Your task to perform on an android device: turn on the 24-hour format for clock Image 0: 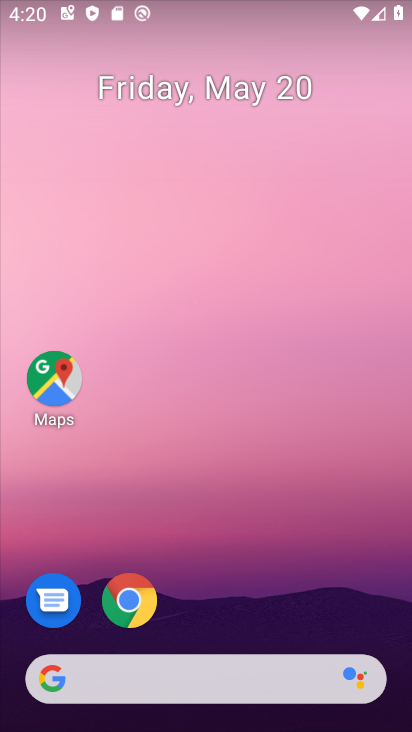
Step 0: drag from (221, 557) to (189, 5)
Your task to perform on an android device: turn on the 24-hour format for clock Image 1: 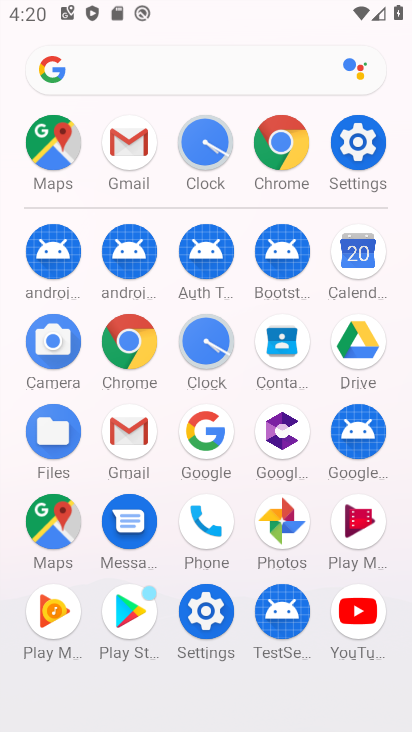
Step 1: drag from (16, 615) to (5, 292)
Your task to perform on an android device: turn on the 24-hour format for clock Image 2: 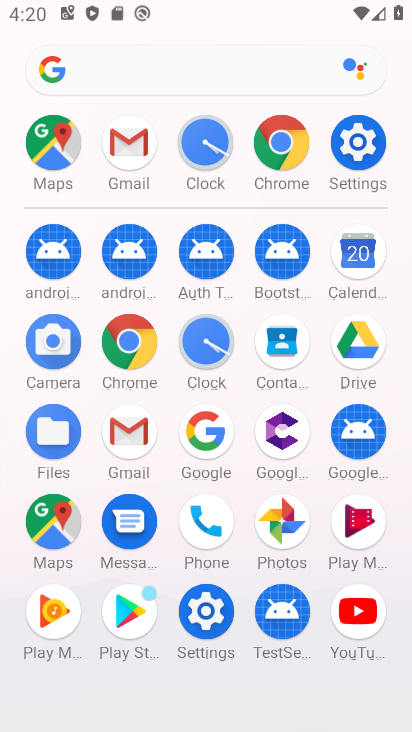
Step 2: click (199, 340)
Your task to perform on an android device: turn on the 24-hour format for clock Image 3: 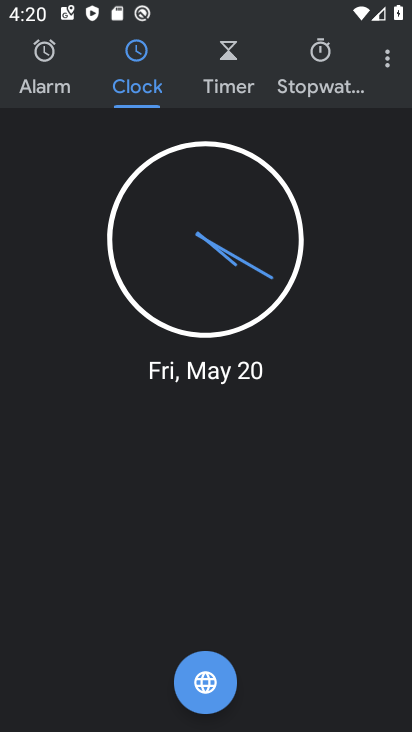
Step 3: drag from (386, 57) to (325, 113)
Your task to perform on an android device: turn on the 24-hour format for clock Image 4: 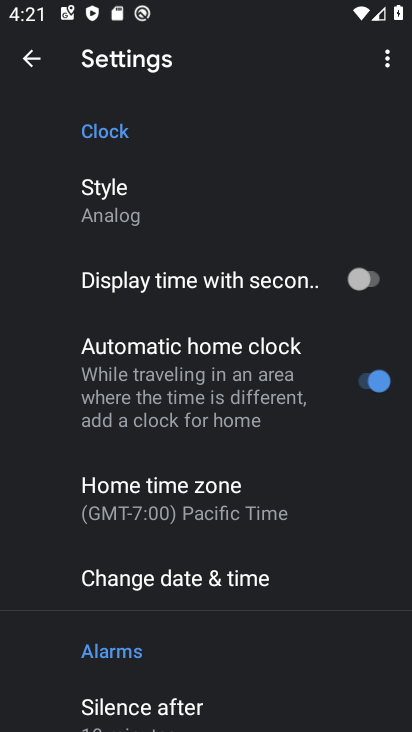
Step 4: drag from (256, 560) to (238, 130)
Your task to perform on an android device: turn on the 24-hour format for clock Image 5: 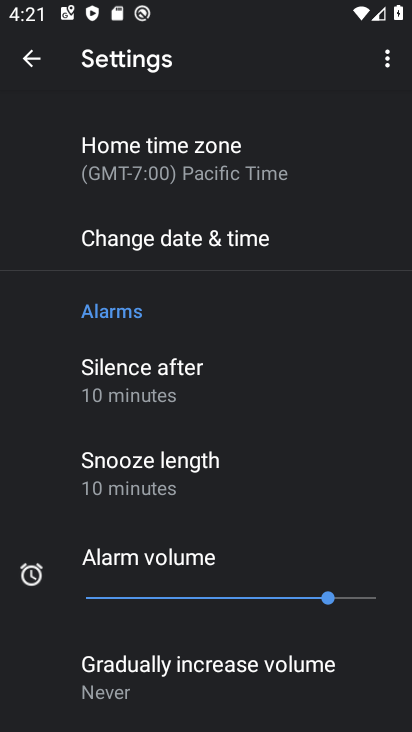
Step 5: drag from (218, 516) to (247, 162)
Your task to perform on an android device: turn on the 24-hour format for clock Image 6: 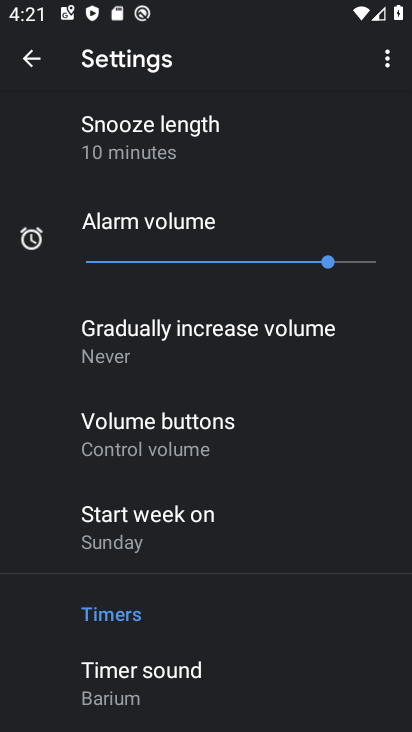
Step 6: drag from (208, 602) to (235, 154)
Your task to perform on an android device: turn on the 24-hour format for clock Image 7: 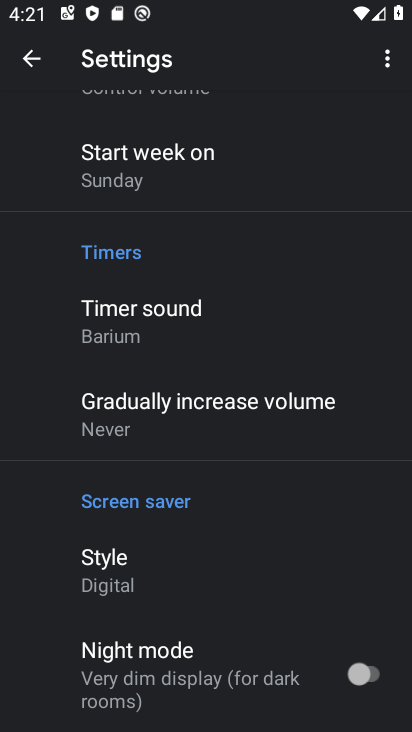
Step 7: drag from (243, 543) to (240, 180)
Your task to perform on an android device: turn on the 24-hour format for clock Image 8: 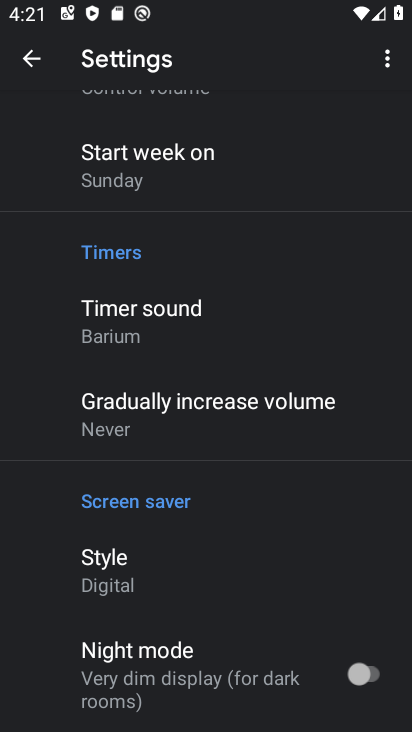
Step 8: drag from (190, 565) to (219, 205)
Your task to perform on an android device: turn on the 24-hour format for clock Image 9: 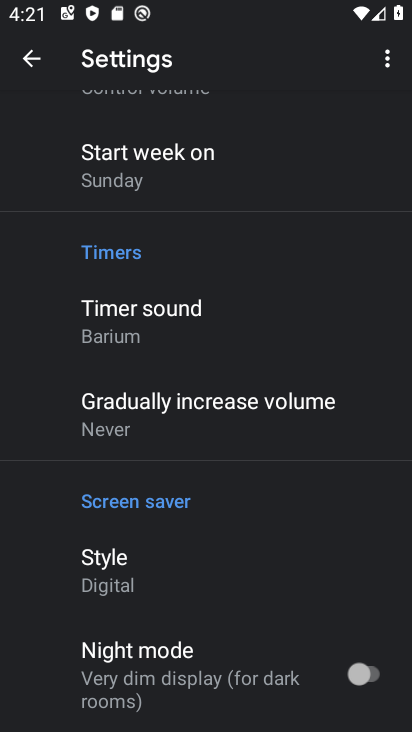
Step 9: drag from (209, 281) to (209, 673)
Your task to perform on an android device: turn on the 24-hour format for clock Image 10: 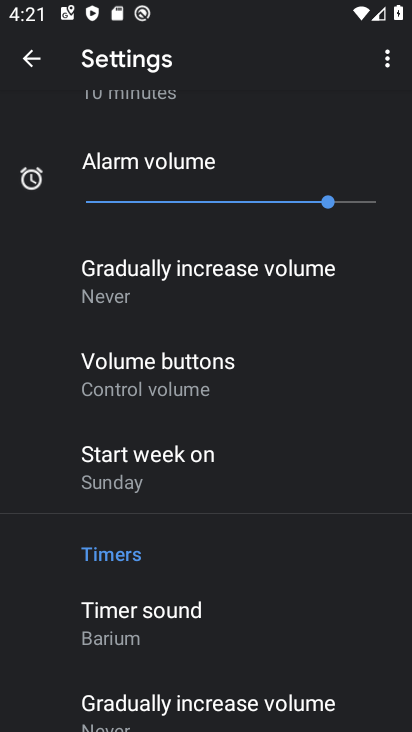
Step 10: drag from (217, 401) to (211, 731)
Your task to perform on an android device: turn on the 24-hour format for clock Image 11: 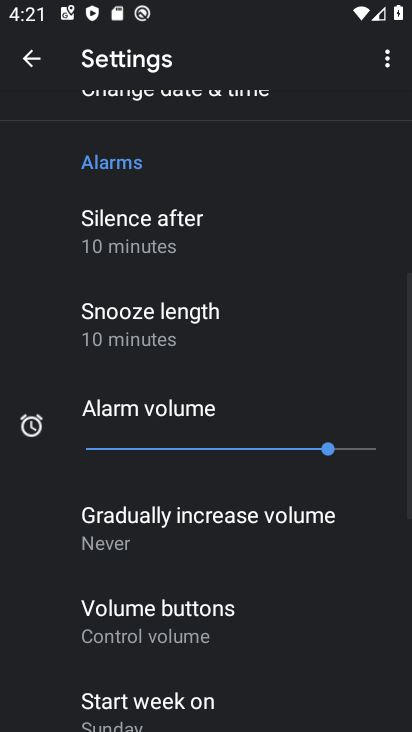
Step 11: drag from (195, 151) to (190, 585)
Your task to perform on an android device: turn on the 24-hour format for clock Image 12: 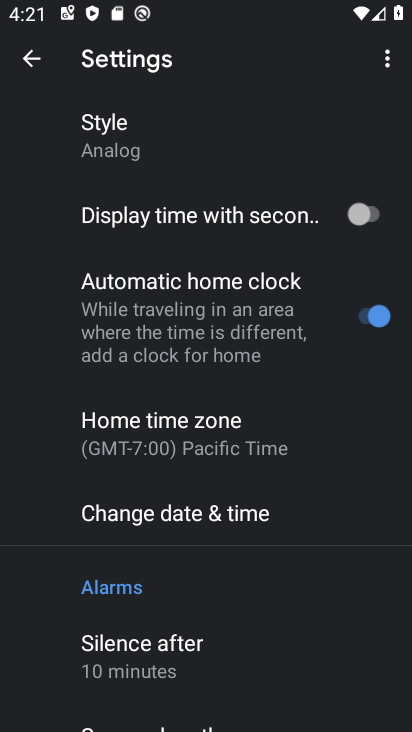
Step 12: click (187, 503)
Your task to perform on an android device: turn on the 24-hour format for clock Image 13: 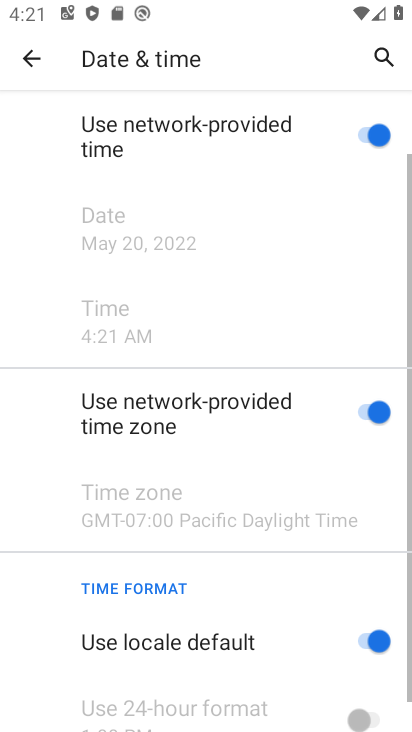
Step 13: drag from (189, 667) to (219, 152)
Your task to perform on an android device: turn on the 24-hour format for clock Image 14: 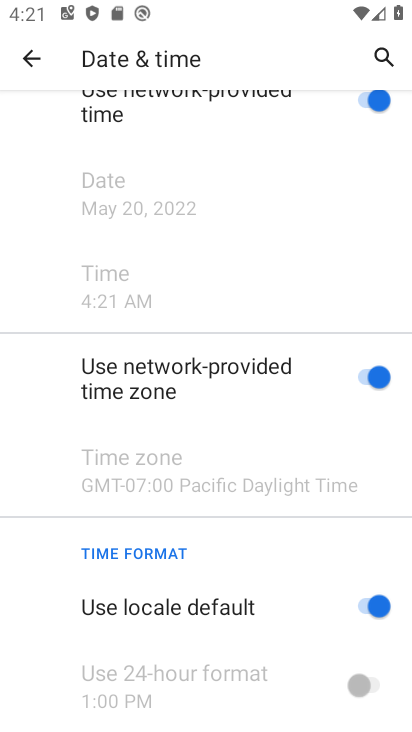
Step 14: drag from (252, 560) to (224, 188)
Your task to perform on an android device: turn on the 24-hour format for clock Image 15: 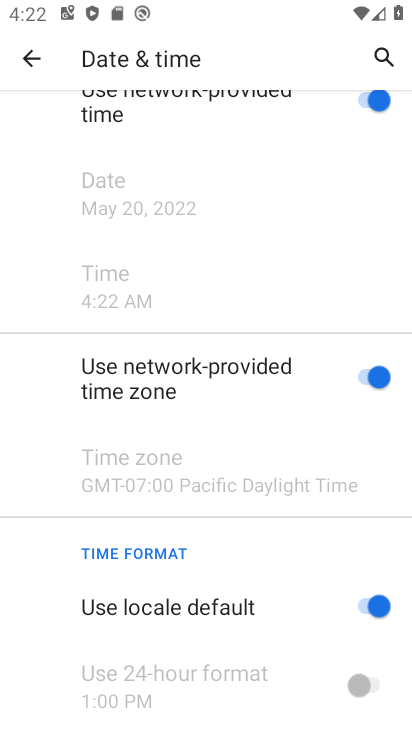
Step 15: drag from (113, 624) to (121, 198)
Your task to perform on an android device: turn on the 24-hour format for clock Image 16: 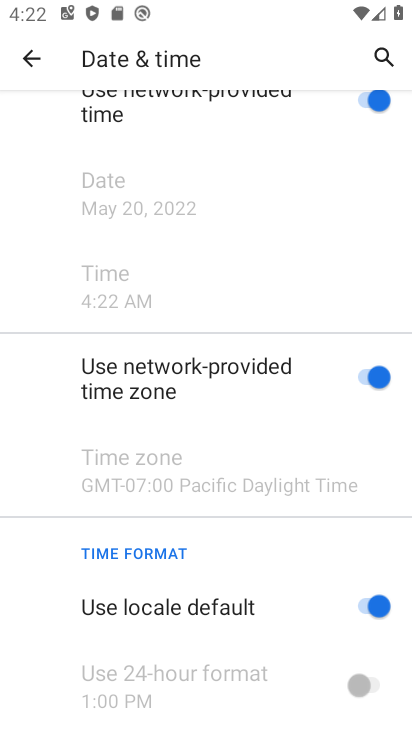
Step 16: drag from (61, 622) to (56, 173)
Your task to perform on an android device: turn on the 24-hour format for clock Image 17: 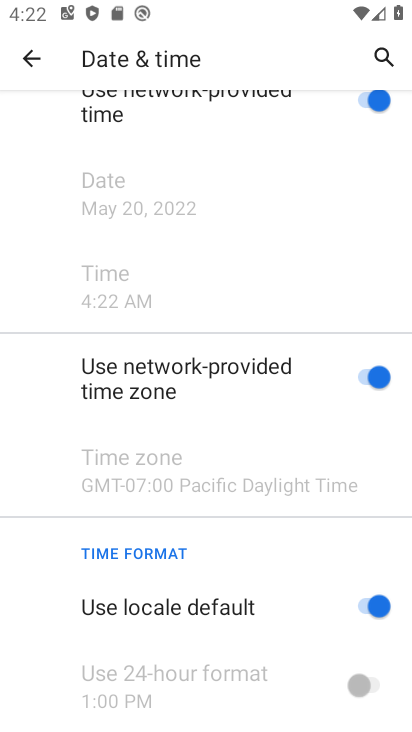
Step 17: click (367, 593)
Your task to perform on an android device: turn on the 24-hour format for clock Image 18: 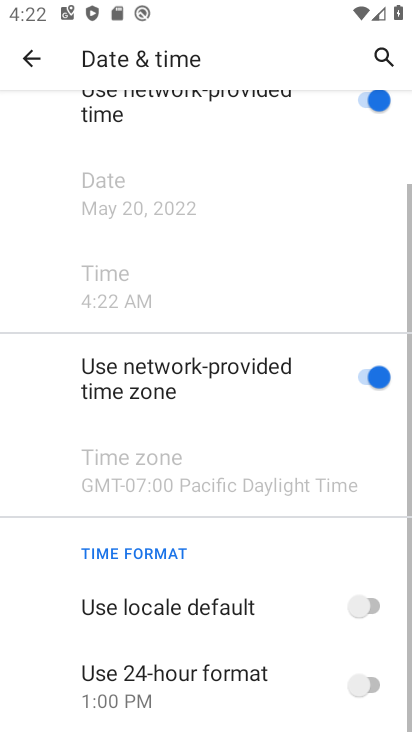
Step 18: click (369, 687)
Your task to perform on an android device: turn on the 24-hour format for clock Image 19: 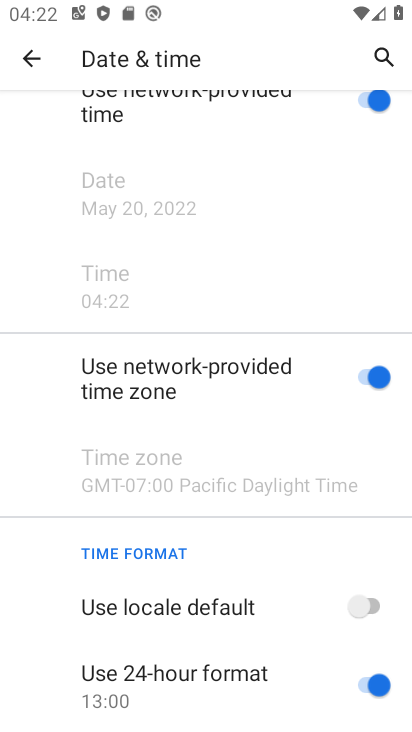
Step 19: task complete